Your task to perform on an android device: Go to network settings Image 0: 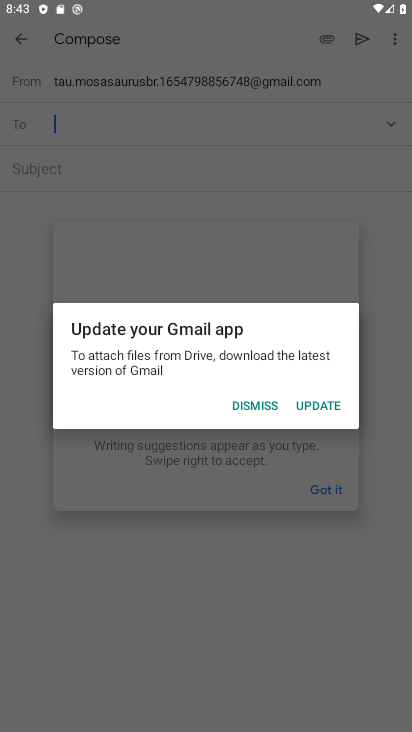
Step 0: press home button
Your task to perform on an android device: Go to network settings Image 1: 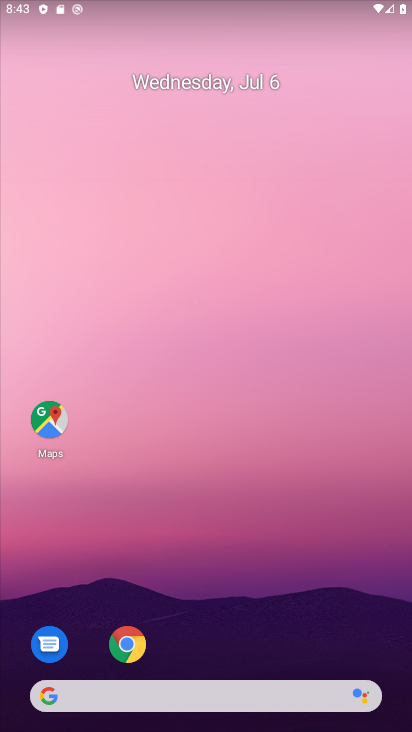
Step 1: drag from (187, 618) to (233, 75)
Your task to perform on an android device: Go to network settings Image 2: 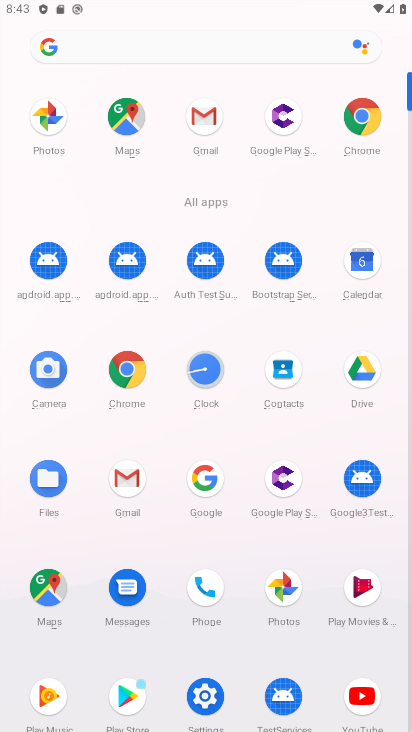
Step 2: drag from (268, 500) to (296, 113)
Your task to perform on an android device: Go to network settings Image 3: 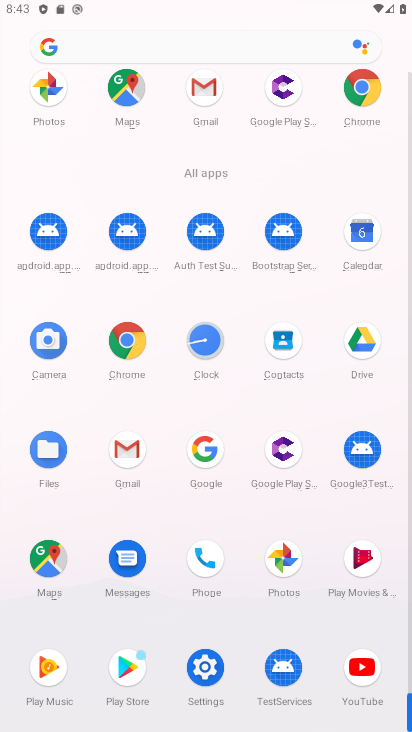
Step 3: click (213, 677)
Your task to perform on an android device: Go to network settings Image 4: 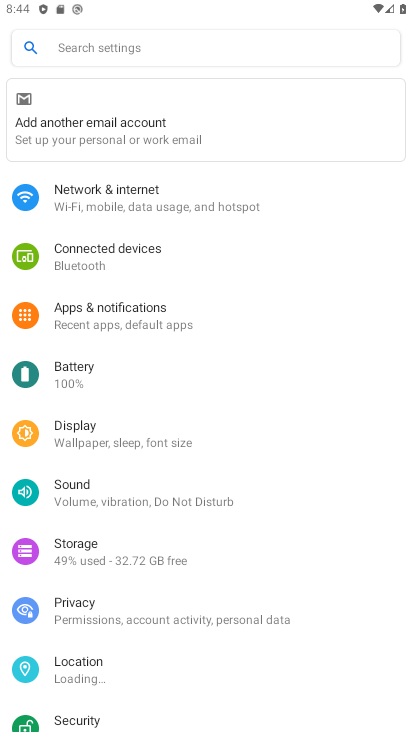
Step 4: click (183, 200)
Your task to perform on an android device: Go to network settings Image 5: 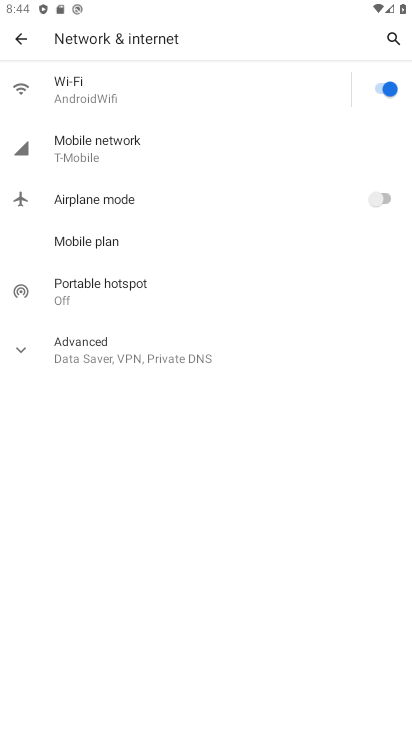
Step 5: click (148, 155)
Your task to perform on an android device: Go to network settings Image 6: 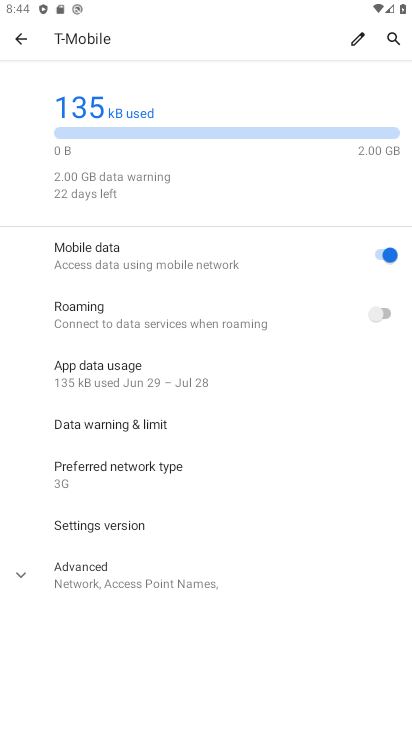
Step 6: task complete